Your task to perform on an android device: turn off location history Image 0: 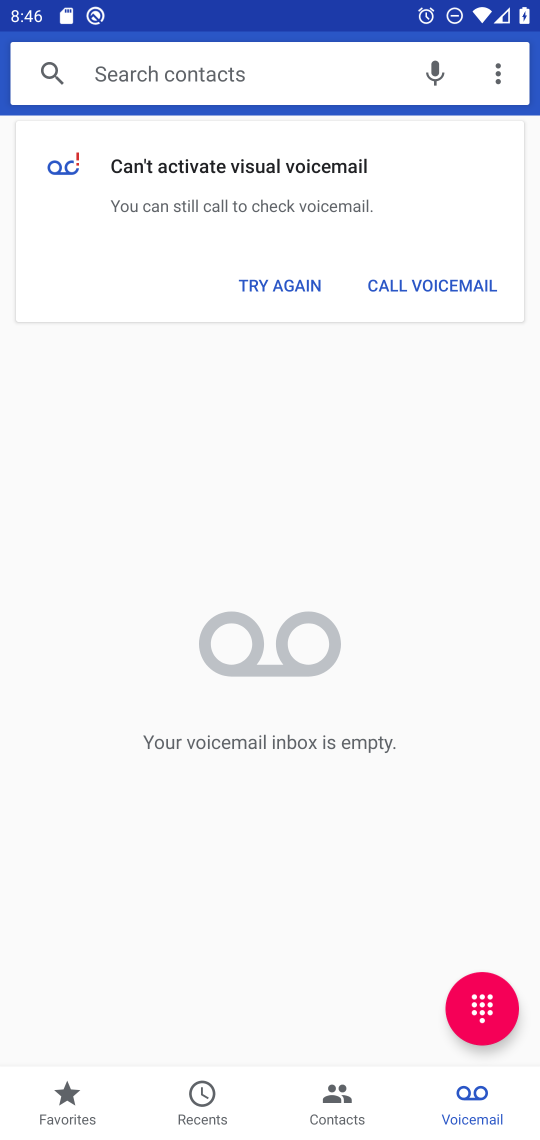
Step 0: press home button
Your task to perform on an android device: turn off location history Image 1: 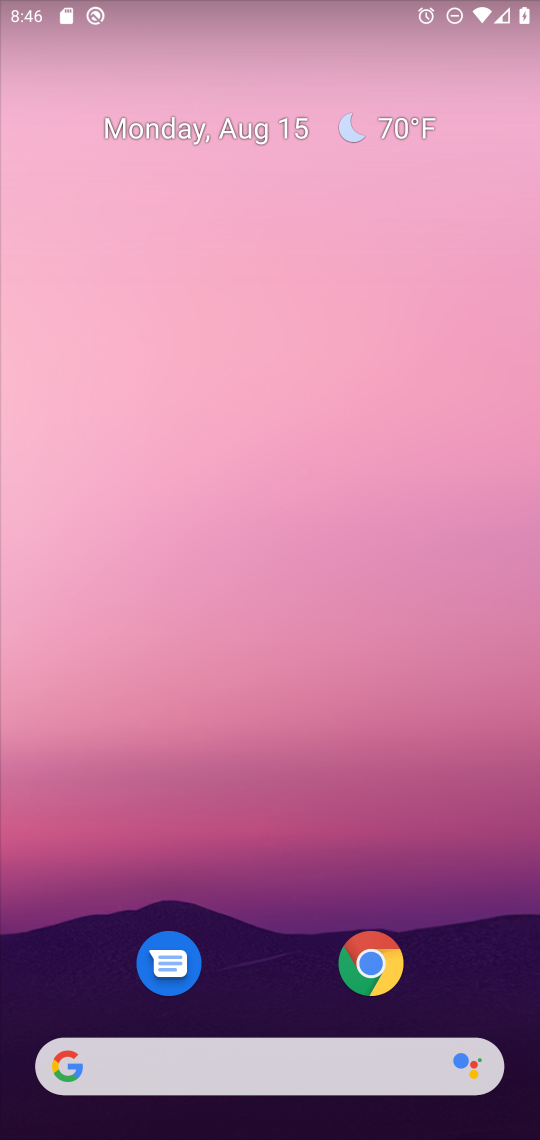
Step 1: drag from (276, 963) to (237, 194)
Your task to perform on an android device: turn off location history Image 2: 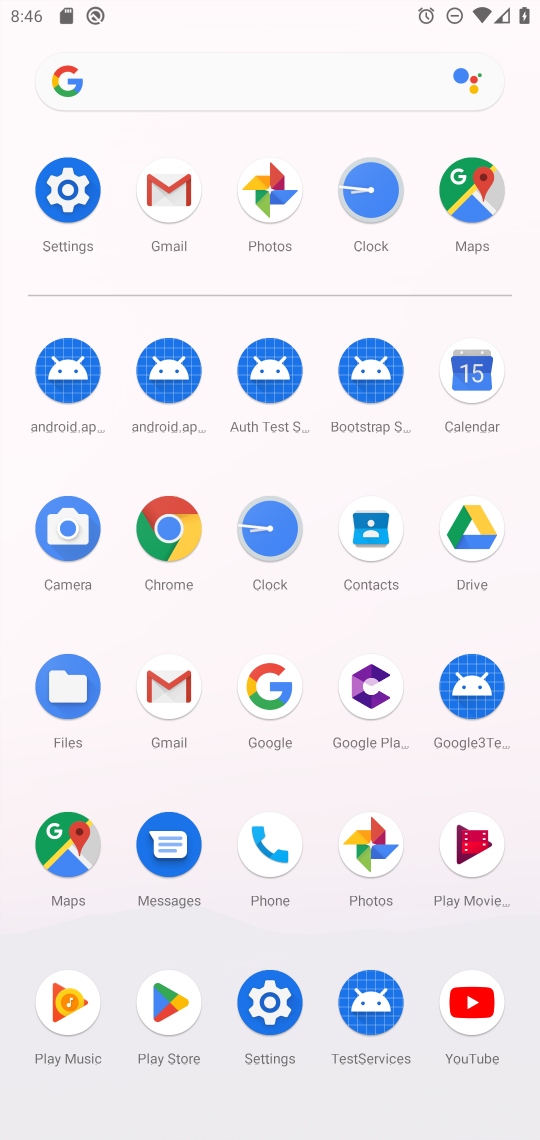
Step 2: click (73, 171)
Your task to perform on an android device: turn off location history Image 3: 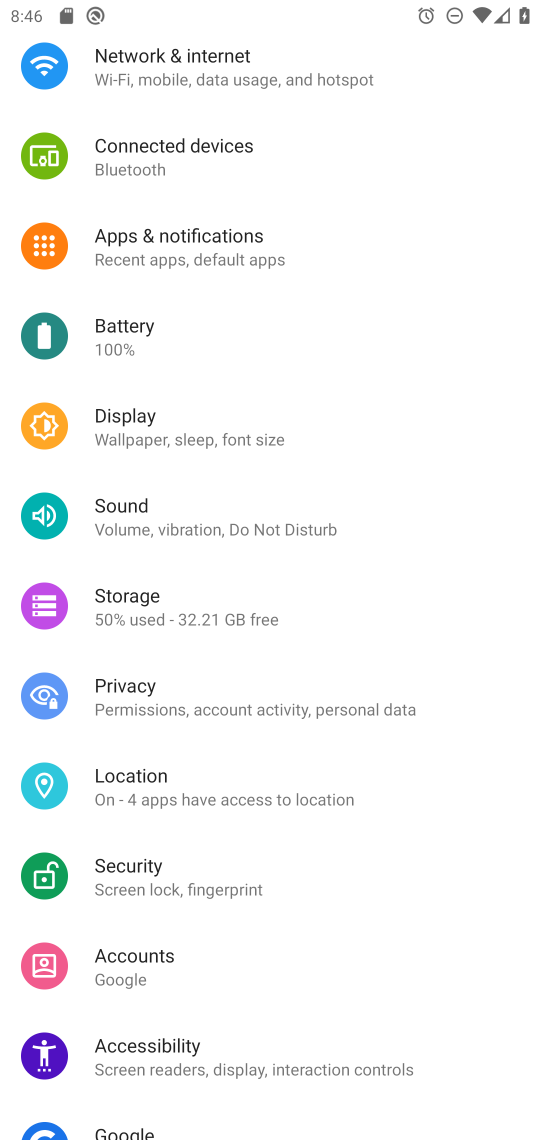
Step 3: click (228, 775)
Your task to perform on an android device: turn off location history Image 4: 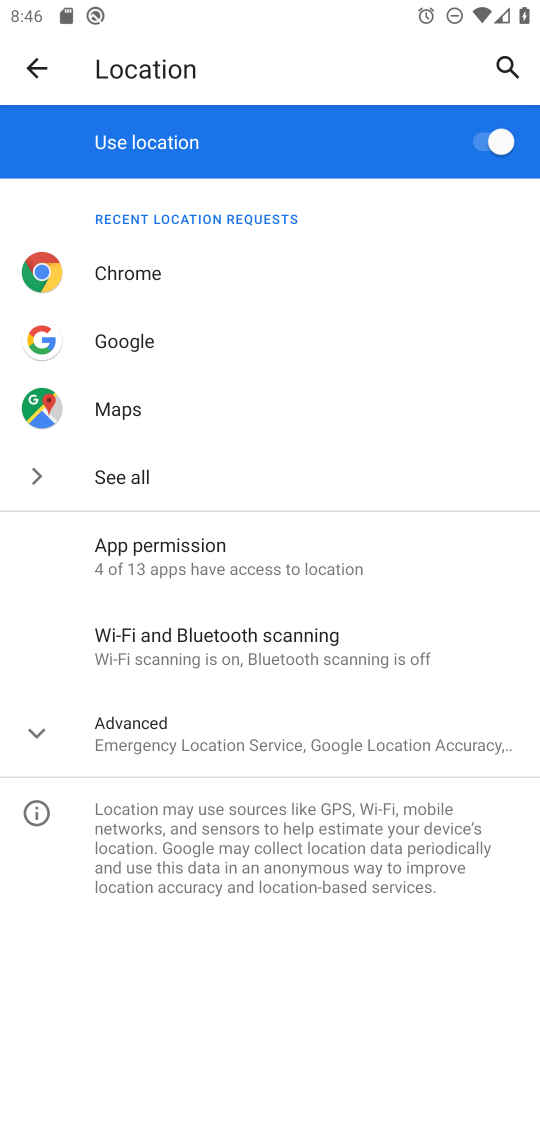
Step 4: click (218, 728)
Your task to perform on an android device: turn off location history Image 5: 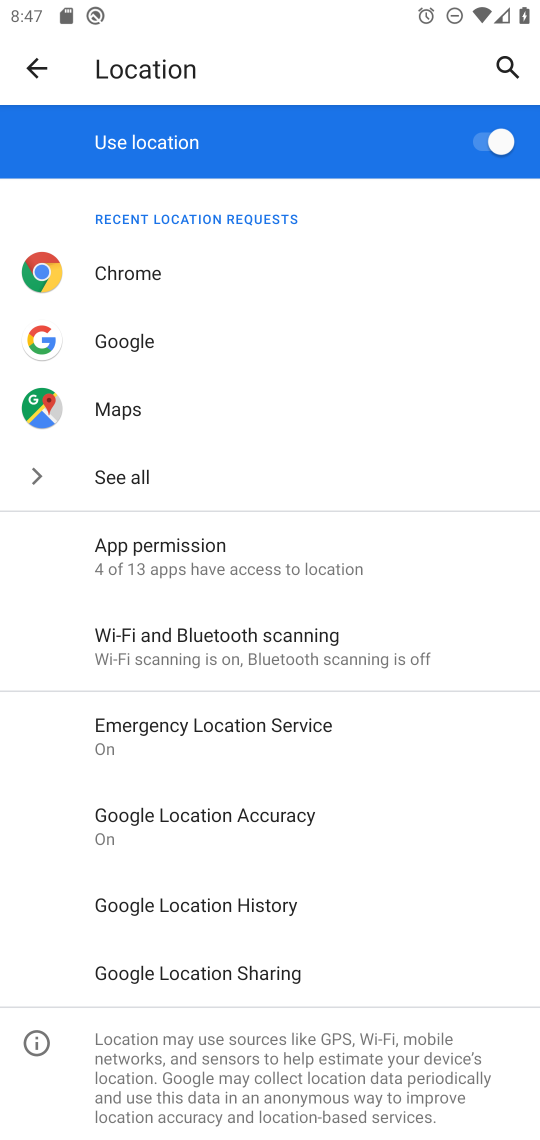
Step 5: click (217, 904)
Your task to perform on an android device: turn off location history Image 6: 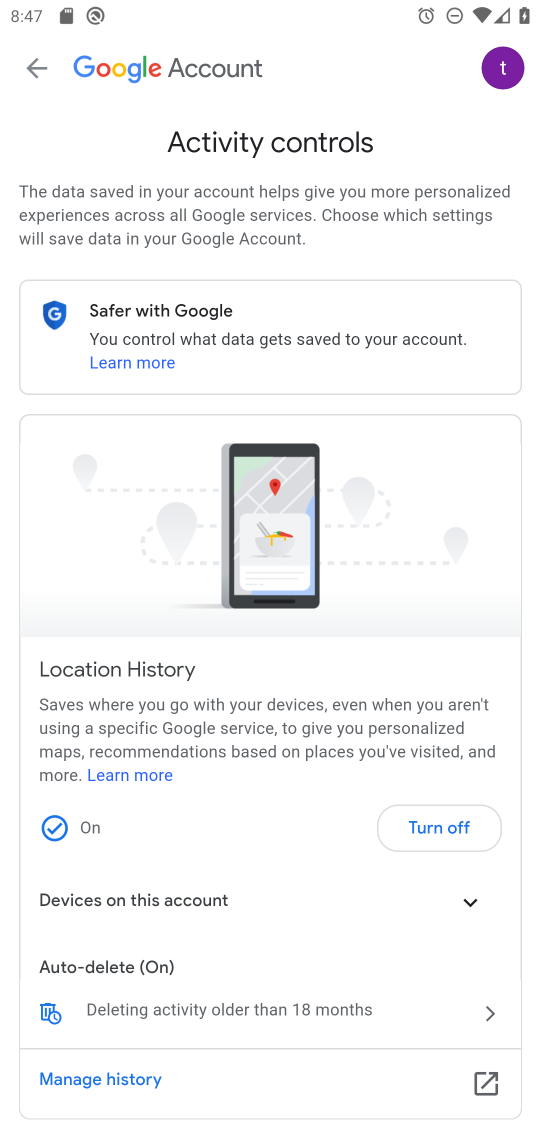
Step 6: click (439, 841)
Your task to perform on an android device: turn off location history Image 7: 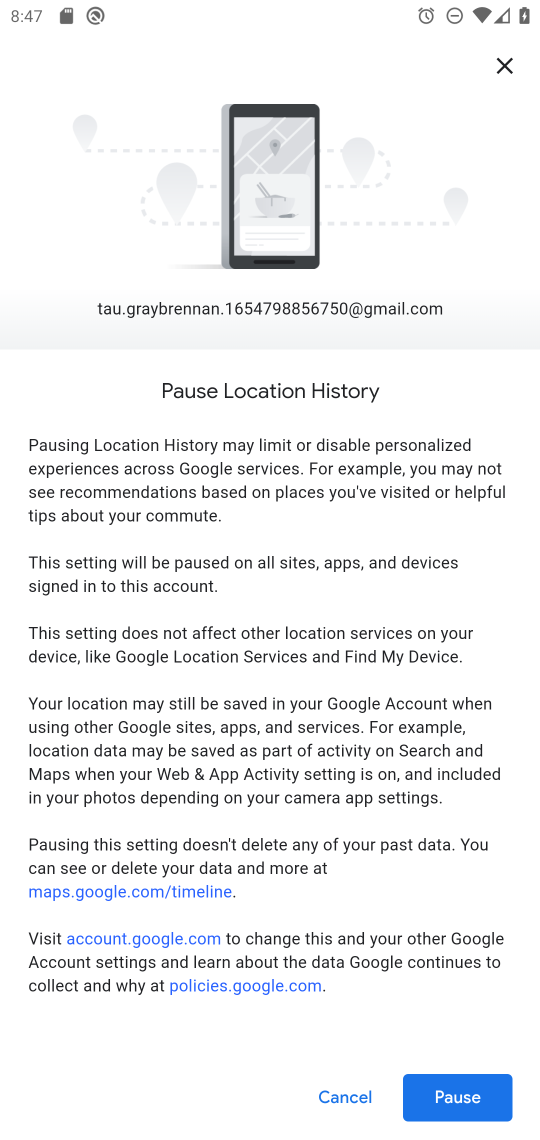
Step 7: click (480, 1080)
Your task to perform on an android device: turn off location history Image 8: 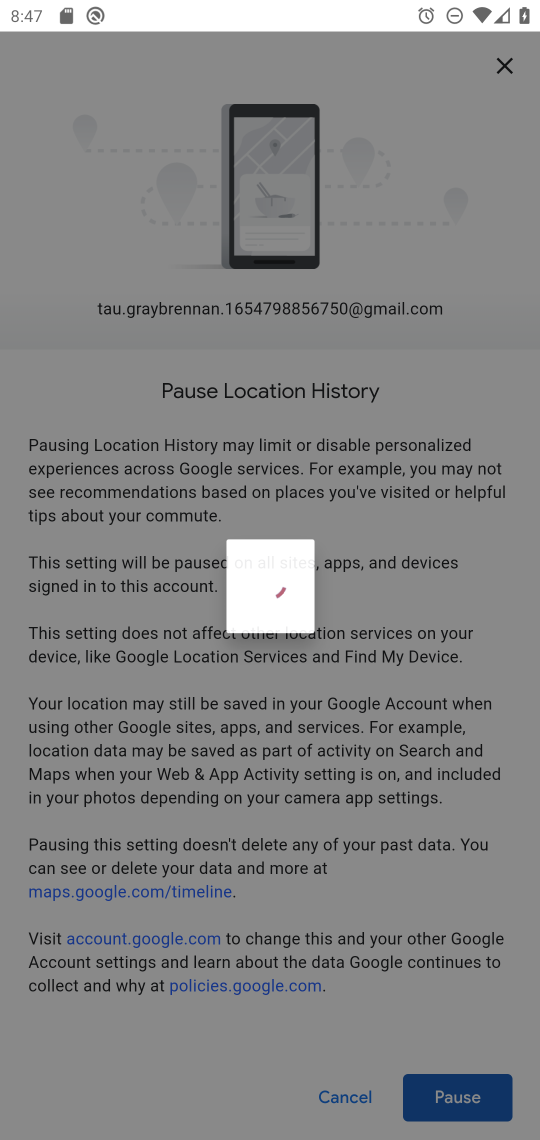
Step 8: task complete